Your task to perform on an android device: change the upload size in google photos Image 0: 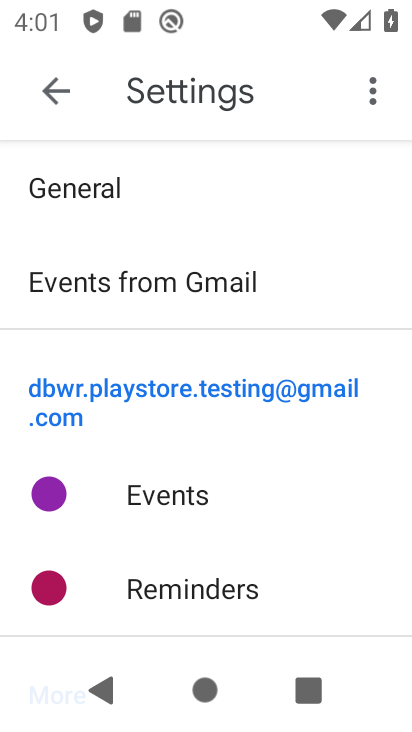
Step 0: press home button
Your task to perform on an android device: change the upload size in google photos Image 1: 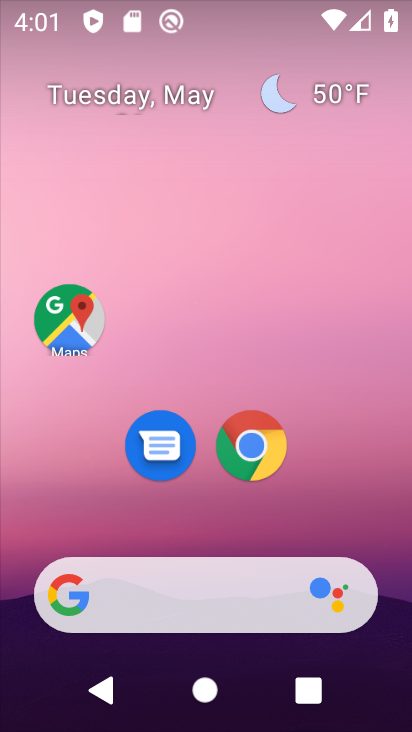
Step 1: drag from (377, 526) to (367, 193)
Your task to perform on an android device: change the upload size in google photos Image 2: 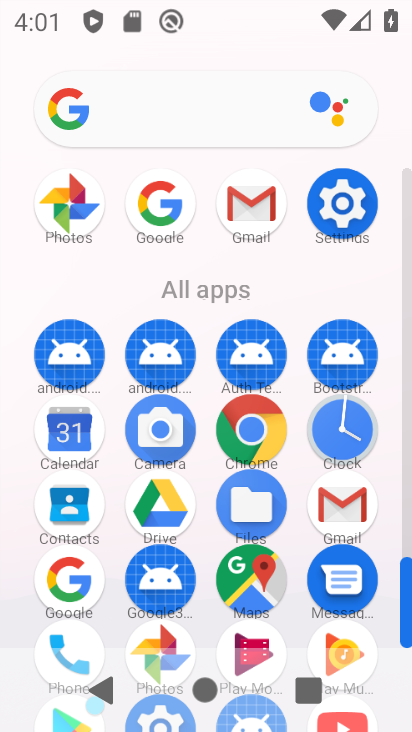
Step 2: drag from (296, 613) to (296, 374)
Your task to perform on an android device: change the upload size in google photos Image 3: 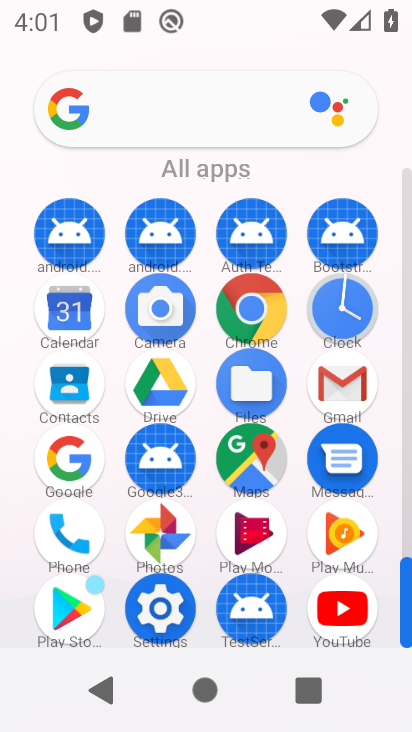
Step 3: click (176, 548)
Your task to perform on an android device: change the upload size in google photos Image 4: 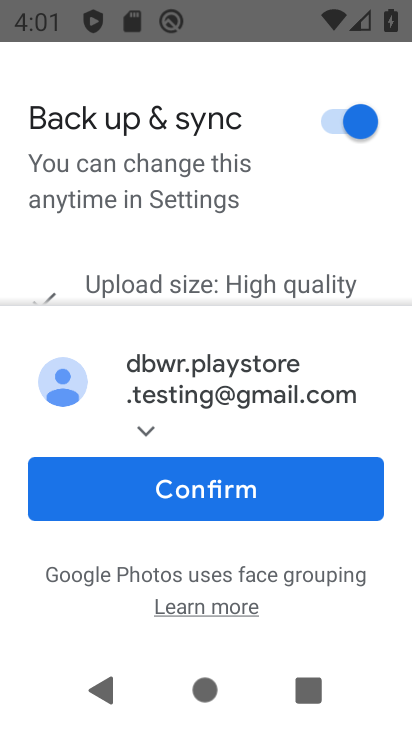
Step 4: click (220, 495)
Your task to perform on an android device: change the upload size in google photos Image 5: 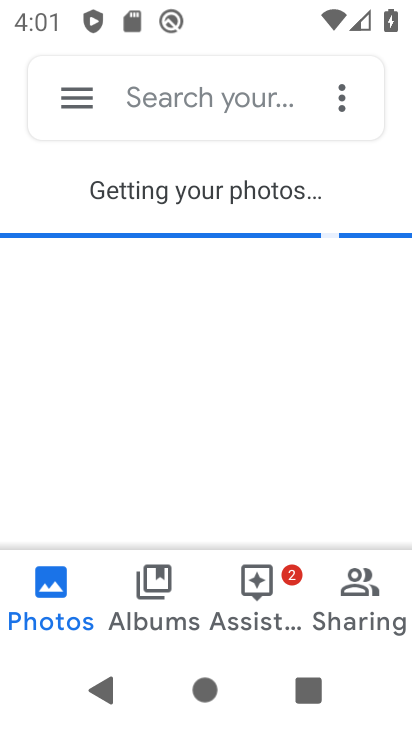
Step 5: click (84, 100)
Your task to perform on an android device: change the upload size in google photos Image 6: 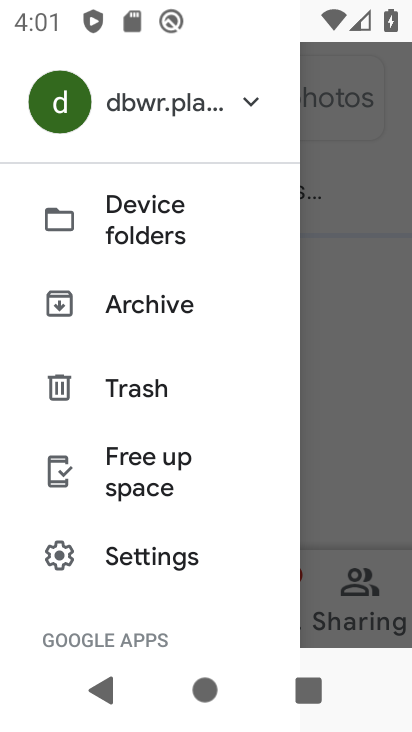
Step 6: click (206, 567)
Your task to perform on an android device: change the upload size in google photos Image 7: 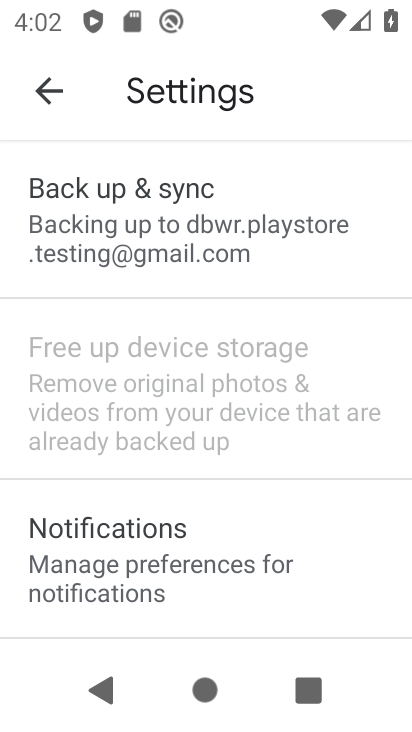
Step 7: click (256, 258)
Your task to perform on an android device: change the upload size in google photos Image 8: 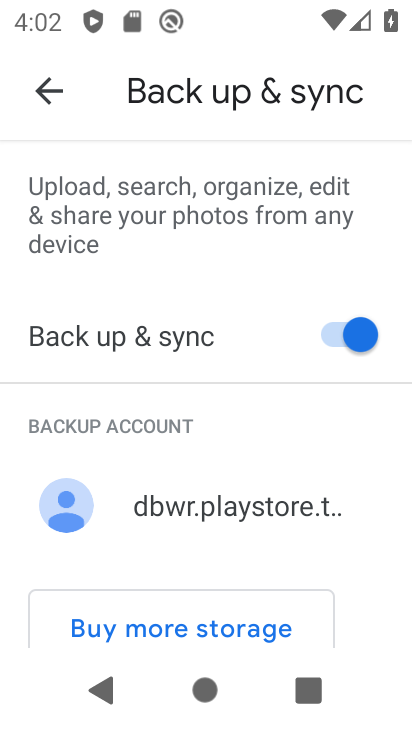
Step 8: drag from (247, 479) to (259, 225)
Your task to perform on an android device: change the upload size in google photos Image 9: 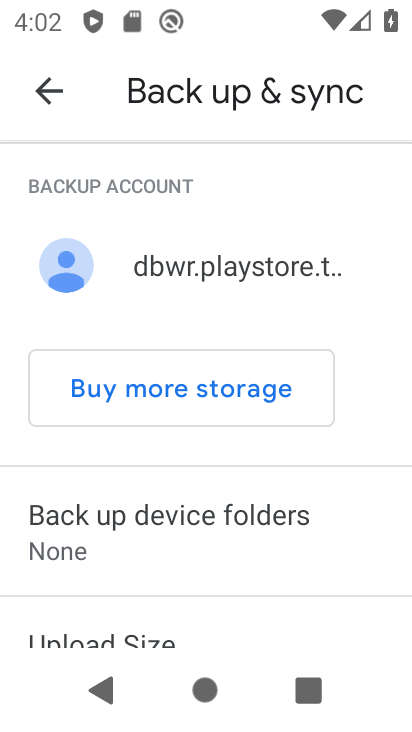
Step 9: drag from (284, 547) to (287, 256)
Your task to perform on an android device: change the upload size in google photos Image 10: 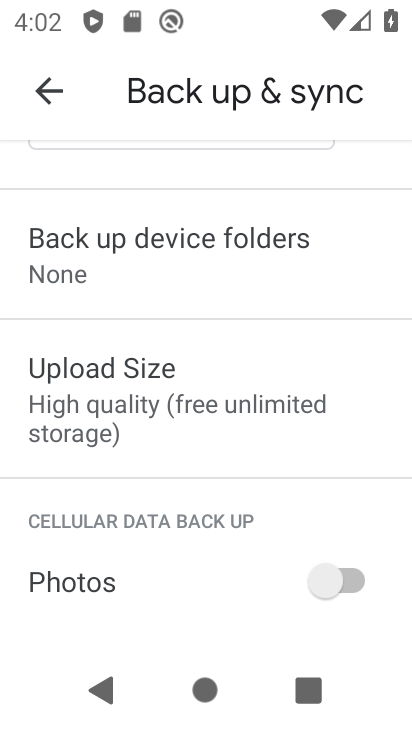
Step 10: click (262, 418)
Your task to perform on an android device: change the upload size in google photos Image 11: 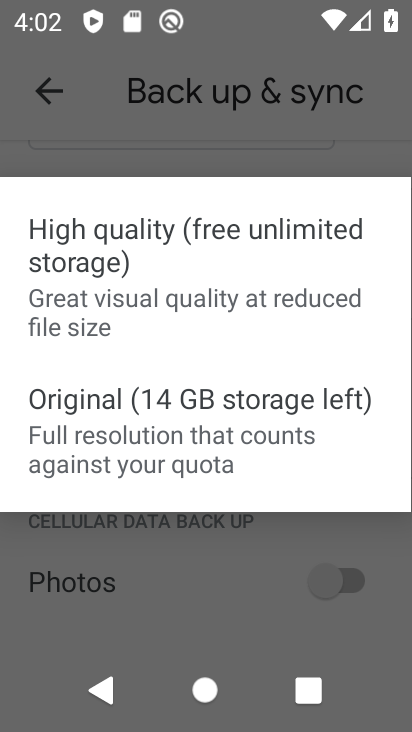
Step 11: click (262, 418)
Your task to perform on an android device: change the upload size in google photos Image 12: 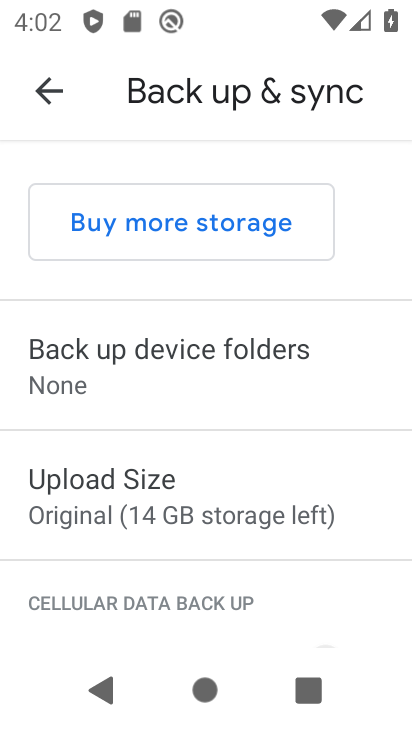
Step 12: task complete